Your task to perform on an android device: see creations saved in the google photos Image 0: 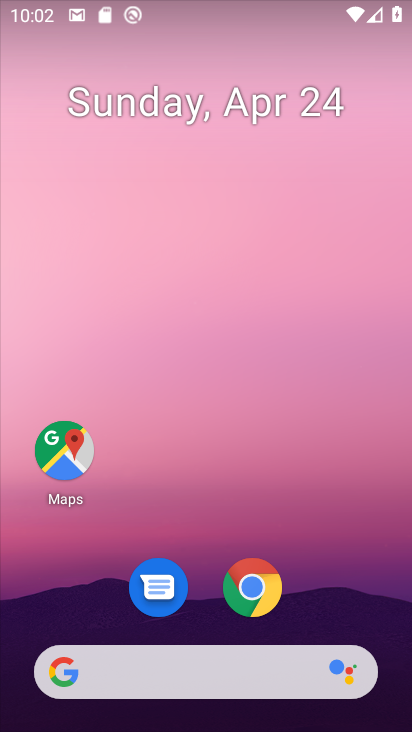
Step 0: drag from (343, 607) to (246, 3)
Your task to perform on an android device: see creations saved in the google photos Image 1: 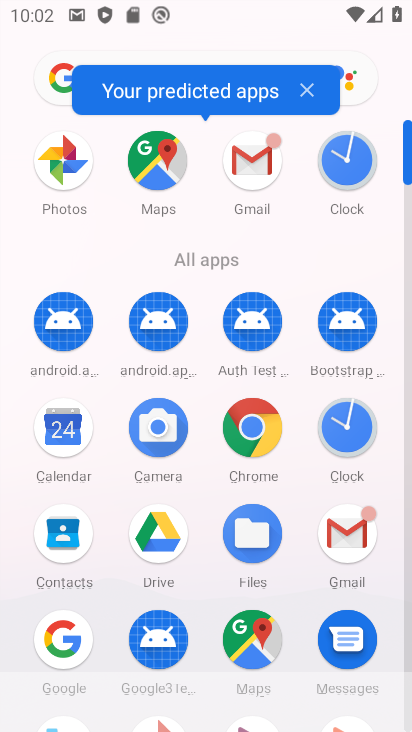
Step 1: click (53, 164)
Your task to perform on an android device: see creations saved in the google photos Image 2: 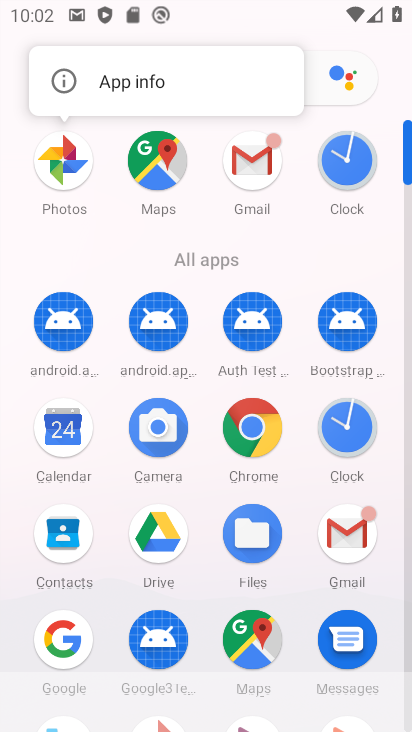
Step 2: click (53, 164)
Your task to perform on an android device: see creations saved in the google photos Image 3: 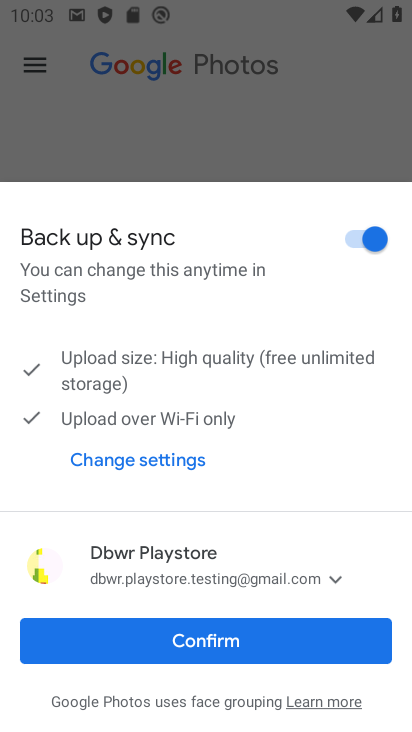
Step 3: click (258, 645)
Your task to perform on an android device: see creations saved in the google photos Image 4: 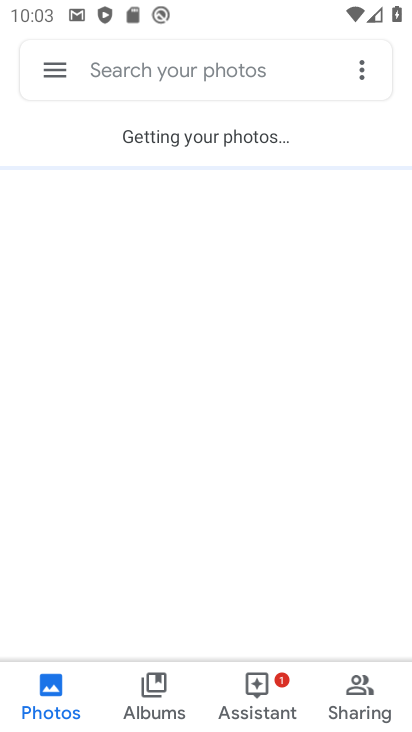
Step 4: click (235, 74)
Your task to perform on an android device: see creations saved in the google photos Image 5: 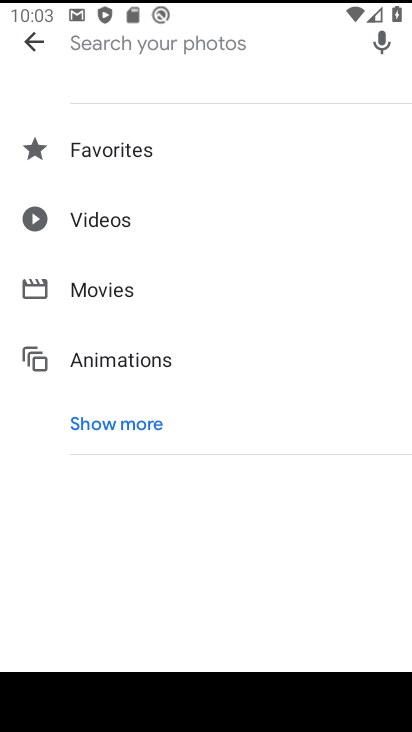
Step 5: click (98, 429)
Your task to perform on an android device: see creations saved in the google photos Image 6: 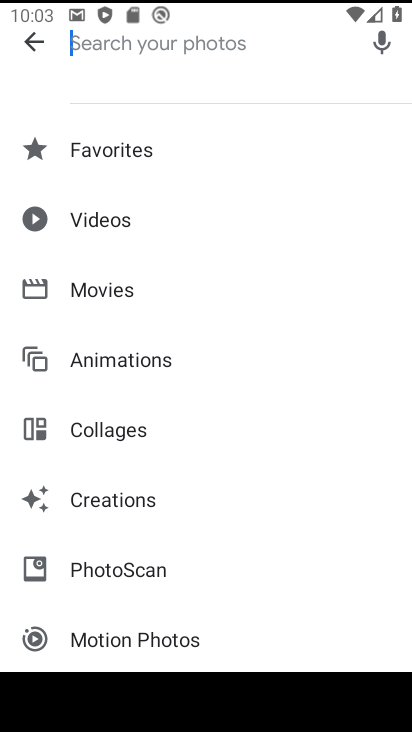
Step 6: click (152, 491)
Your task to perform on an android device: see creations saved in the google photos Image 7: 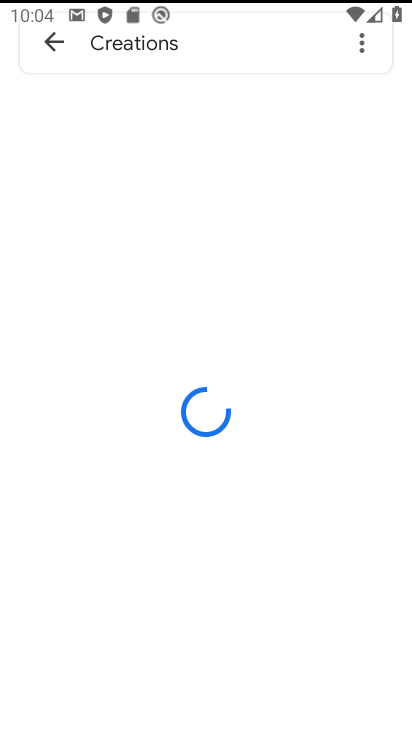
Step 7: task complete